Your task to perform on an android device: Open the calendar app, open the side menu, and click the "Day" option Image 0: 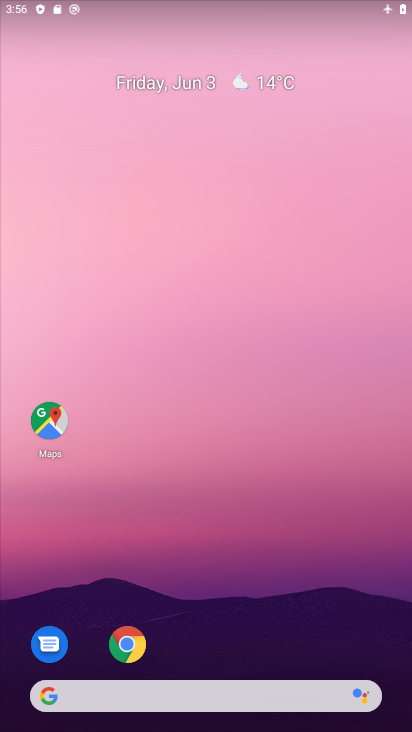
Step 0: click (154, 86)
Your task to perform on an android device: Open the calendar app, open the side menu, and click the "Day" option Image 1: 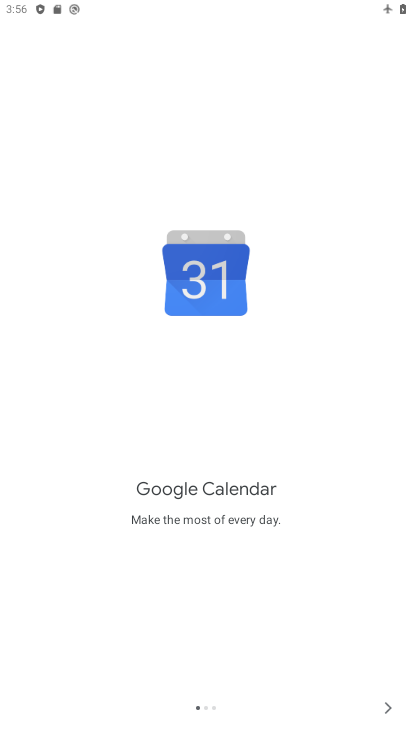
Step 1: click (388, 697)
Your task to perform on an android device: Open the calendar app, open the side menu, and click the "Day" option Image 2: 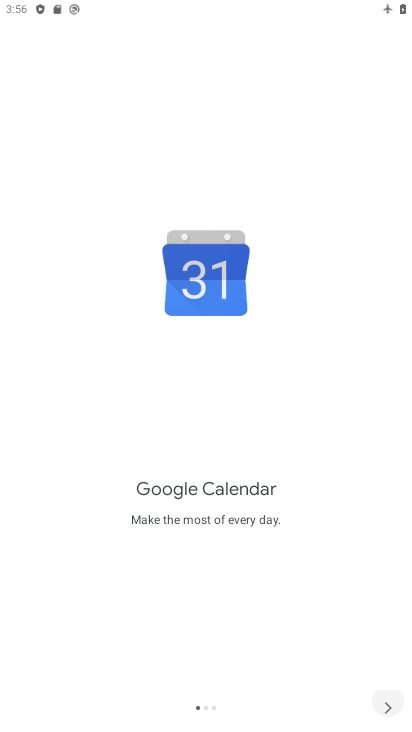
Step 2: click (388, 697)
Your task to perform on an android device: Open the calendar app, open the side menu, and click the "Day" option Image 3: 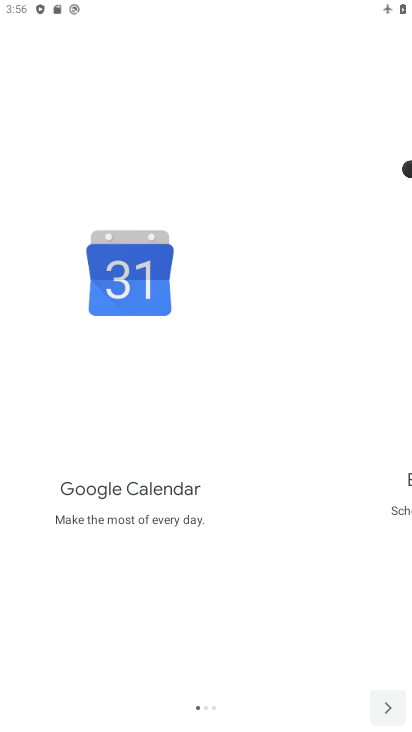
Step 3: click (388, 697)
Your task to perform on an android device: Open the calendar app, open the side menu, and click the "Day" option Image 4: 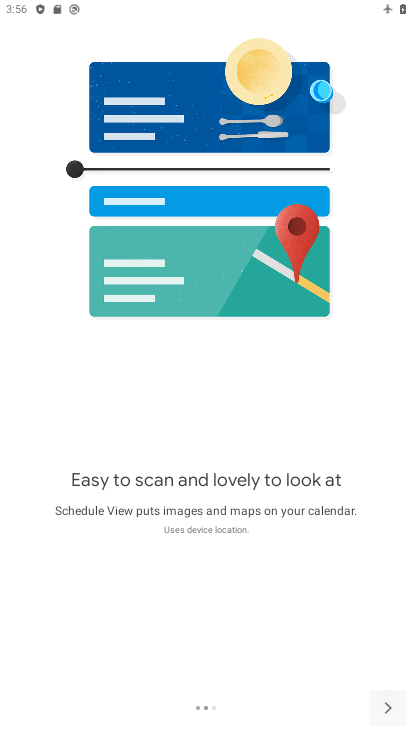
Step 4: click (388, 697)
Your task to perform on an android device: Open the calendar app, open the side menu, and click the "Day" option Image 5: 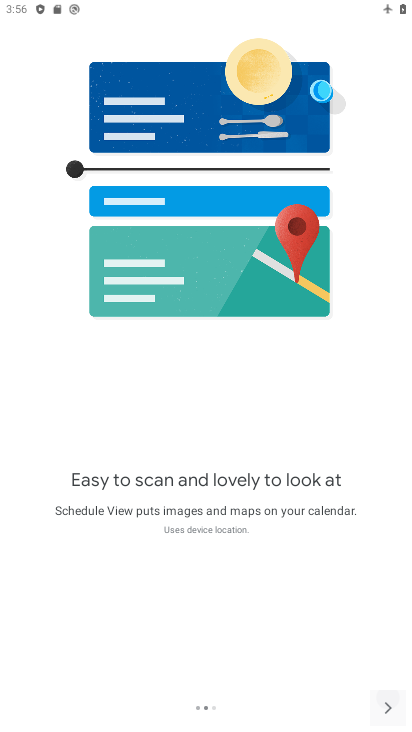
Step 5: click (388, 697)
Your task to perform on an android device: Open the calendar app, open the side menu, and click the "Day" option Image 6: 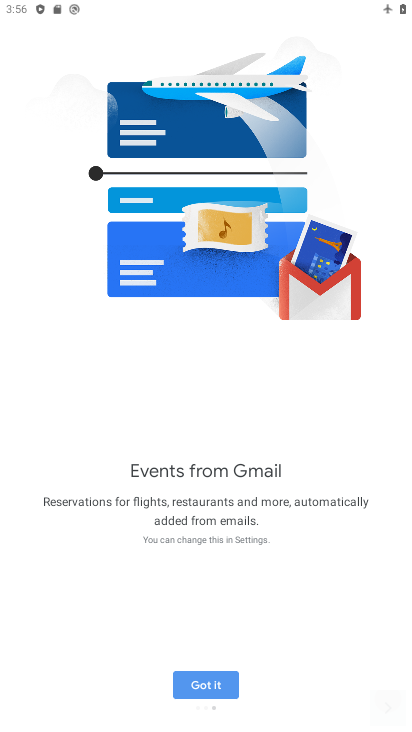
Step 6: click (388, 697)
Your task to perform on an android device: Open the calendar app, open the side menu, and click the "Day" option Image 7: 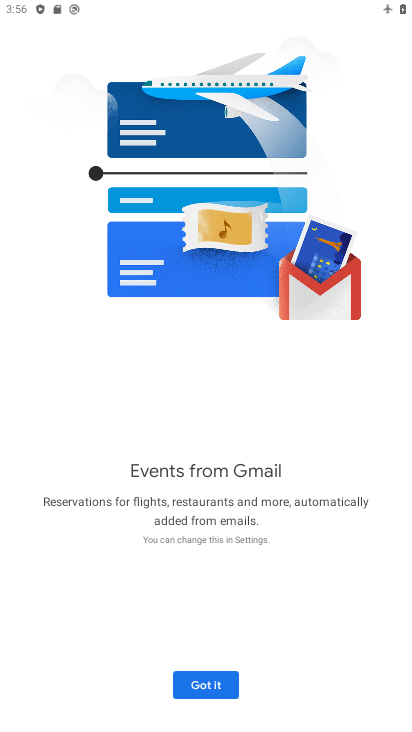
Step 7: click (388, 697)
Your task to perform on an android device: Open the calendar app, open the side menu, and click the "Day" option Image 8: 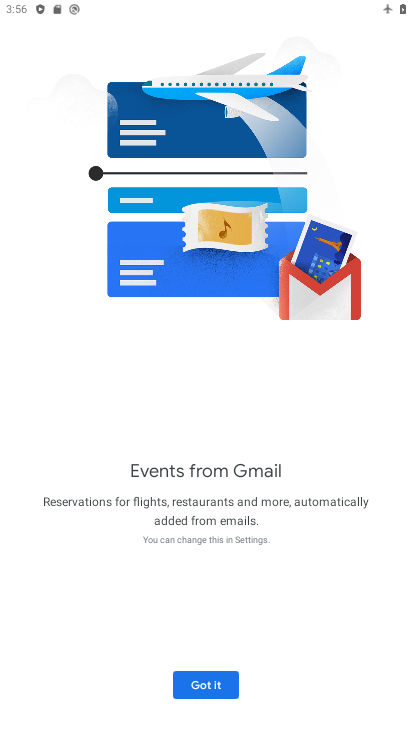
Step 8: click (388, 697)
Your task to perform on an android device: Open the calendar app, open the side menu, and click the "Day" option Image 9: 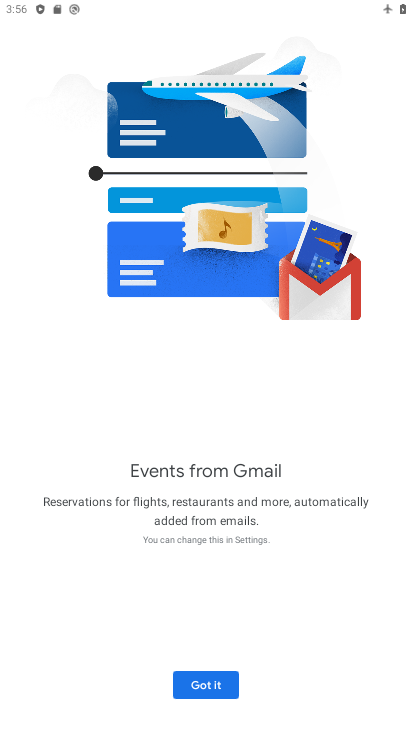
Step 9: click (388, 697)
Your task to perform on an android device: Open the calendar app, open the side menu, and click the "Day" option Image 10: 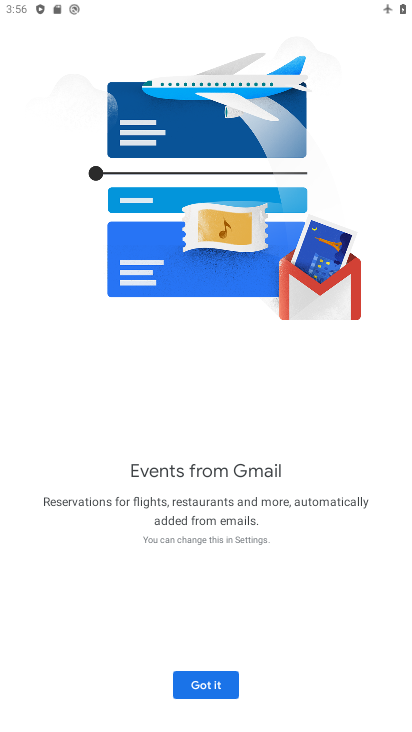
Step 10: click (189, 693)
Your task to perform on an android device: Open the calendar app, open the side menu, and click the "Day" option Image 11: 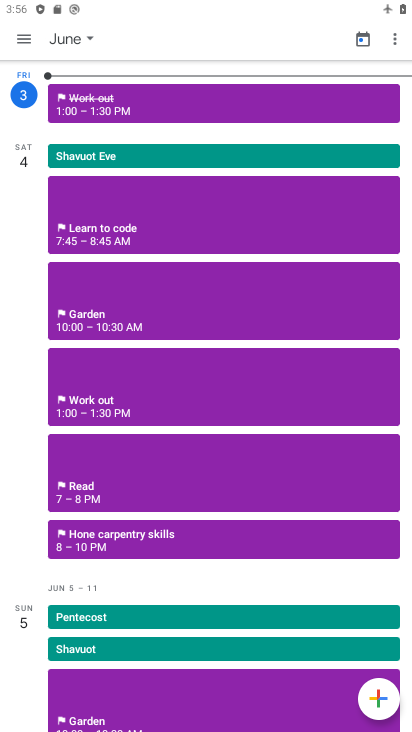
Step 11: click (41, 48)
Your task to perform on an android device: Open the calendar app, open the side menu, and click the "Day" option Image 12: 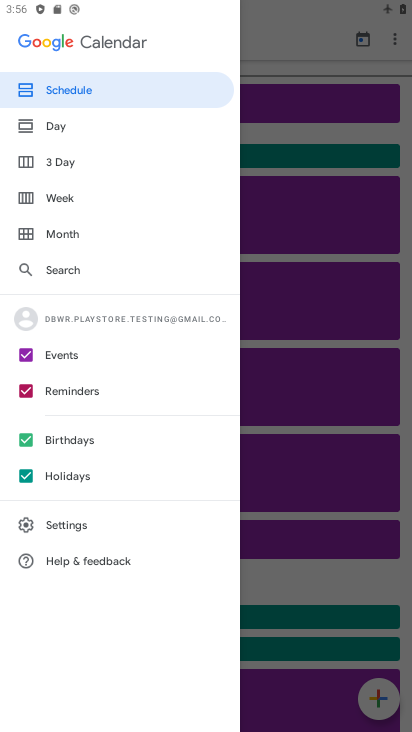
Step 12: click (86, 128)
Your task to perform on an android device: Open the calendar app, open the side menu, and click the "Day" option Image 13: 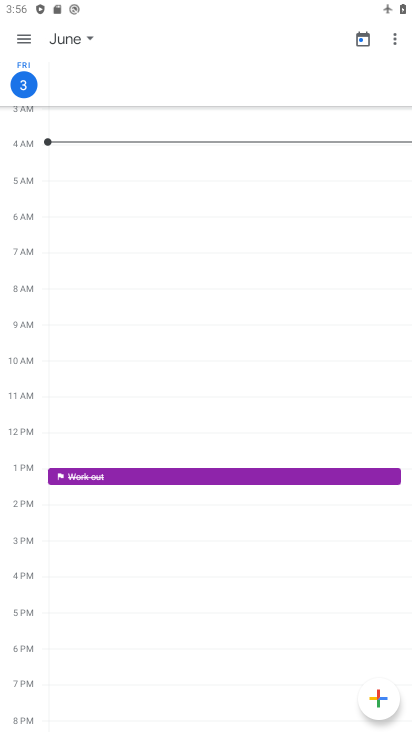
Step 13: task complete